Your task to perform on an android device: move a message to another label in the gmail app Image 0: 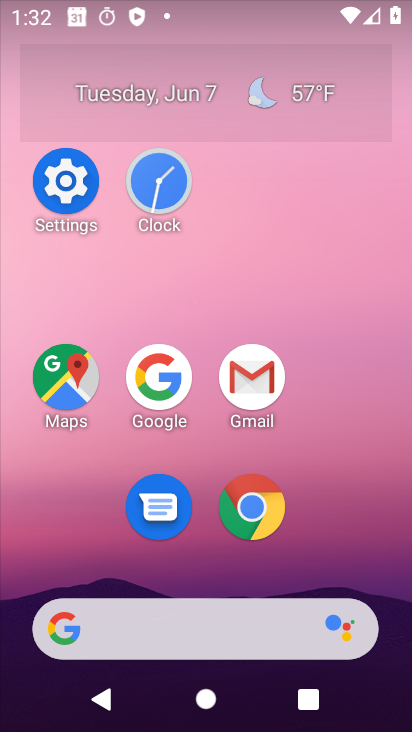
Step 0: click (263, 385)
Your task to perform on an android device: move a message to another label in the gmail app Image 1: 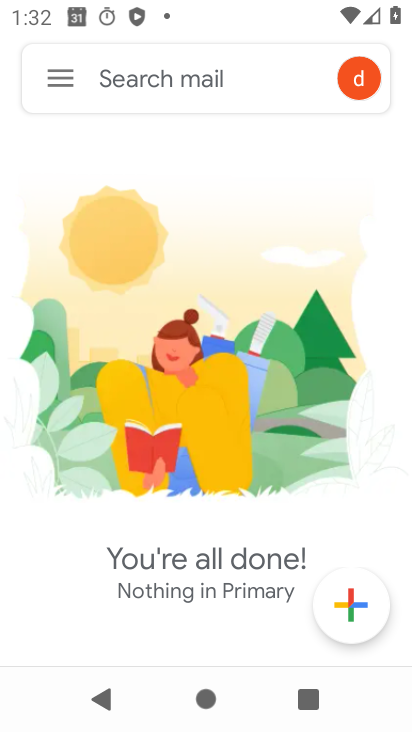
Step 1: click (51, 98)
Your task to perform on an android device: move a message to another label in the gmail app Image 2: 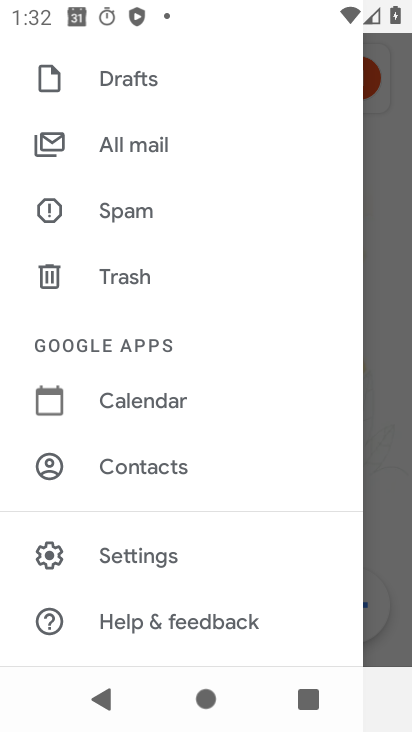
Step 2: click (199, 151)
Your task to perform on an android device: move a message to another label in the gmail app Image 3: 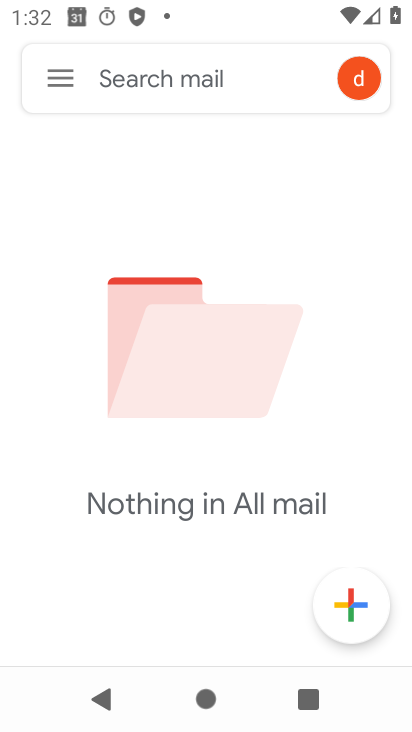
Step 3: task complete